Your task to perform on an android device: Check the weather Image 0: 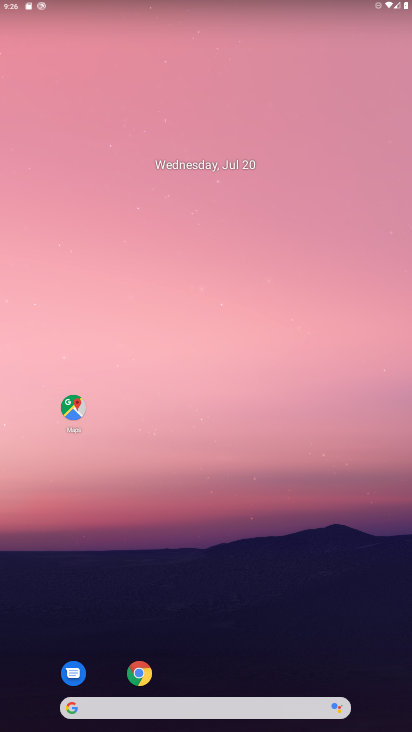
Step 0: drag from (173, 658) to (136, 168)
Your task to perform on an android device: Check the weather Image 1: 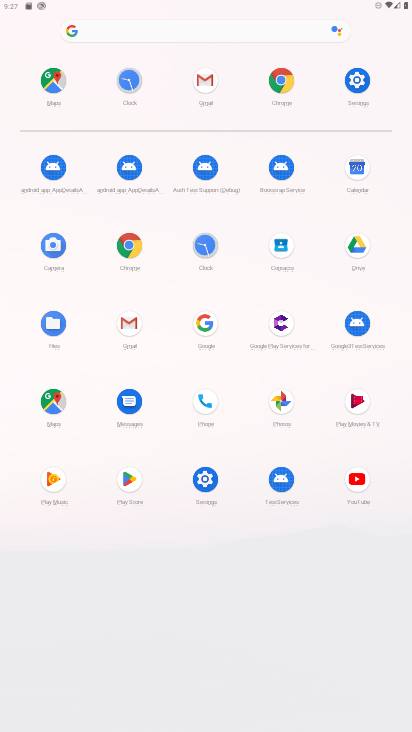
Step 1: drag from (156, 533) to (198, 253)
Your task to perform on an android device: Check the weather Image 2: 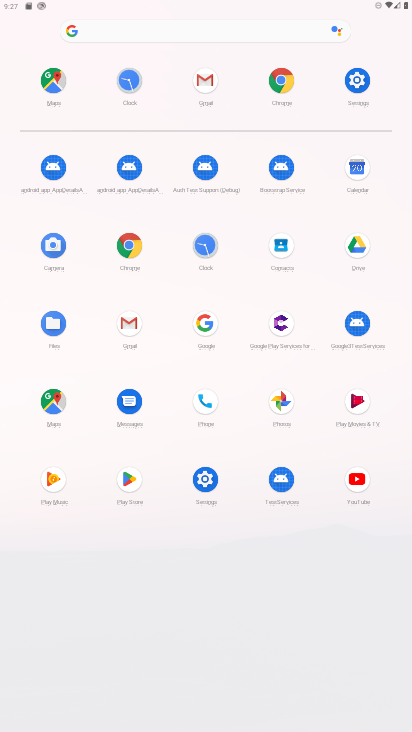
Step 2: click (161, 31)
Your task to perform on an android device: Check the weather Image 3: 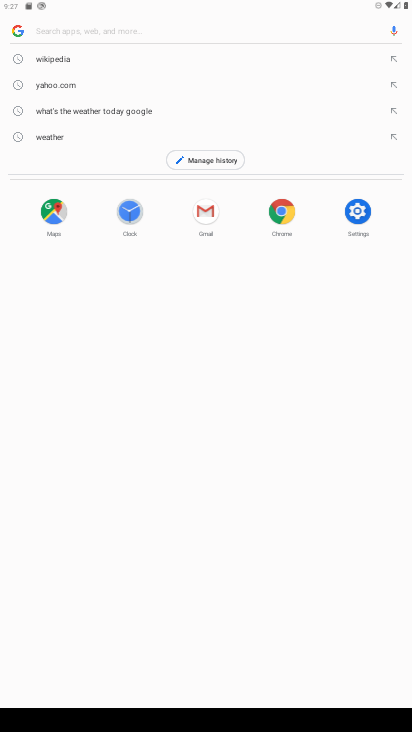
Step 3: click (69, 131)
Your task to perform on an android device: Check the weather Image 4: 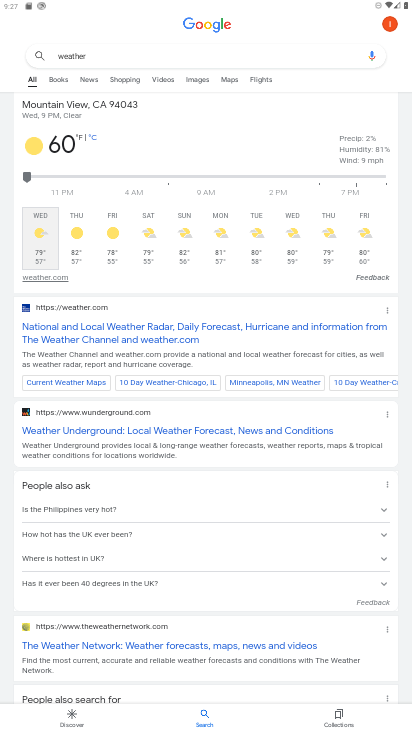
Step 4: task complete